Your task to perform on an android device: Set the phone to "Do not disturb". Image 0: 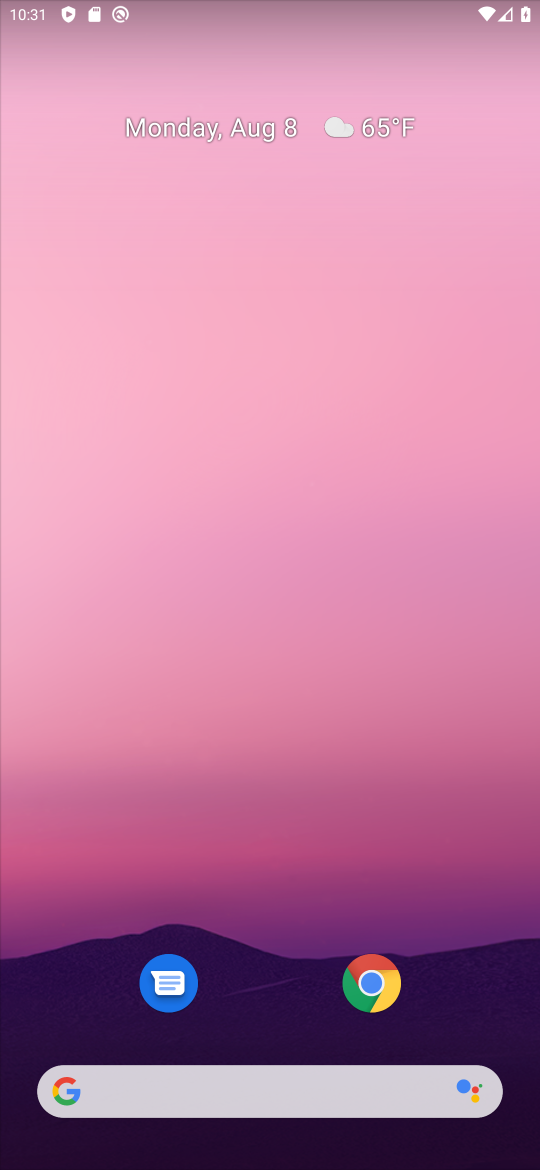
Step 0: drag from (267, 1031) to (261, 337)
Your task to perform on an android device: Set the phone to "Do not disturb". Image 1: 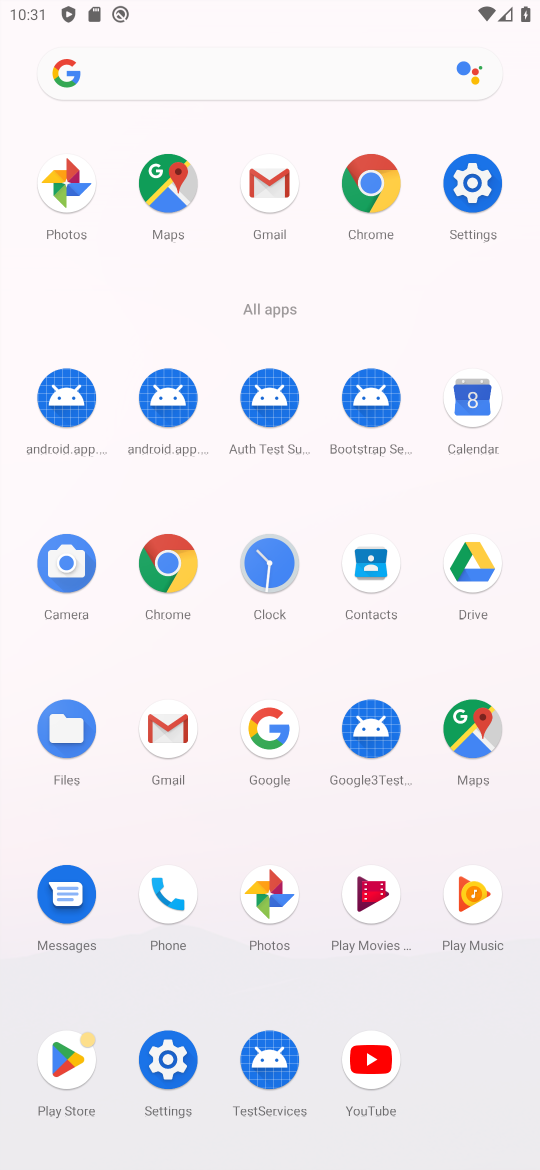
Step 1: click (505, 178)
Your task to perform on an android device: Set the phone to "Do not disturb". Image 2: 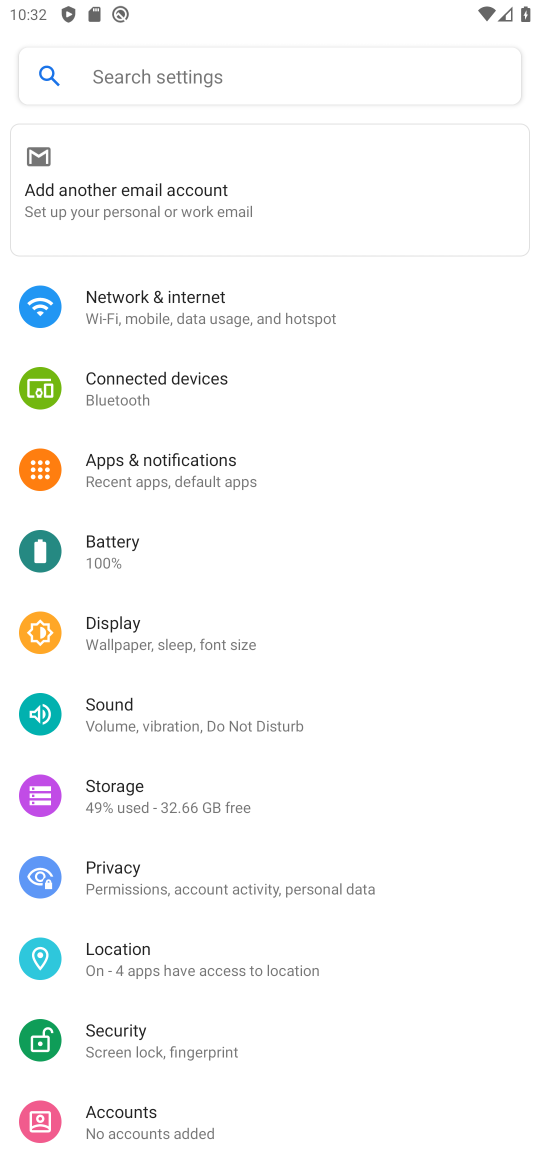
Step 2: task complete